Your task to perform on an android device: turn on airplane mode Image 0: 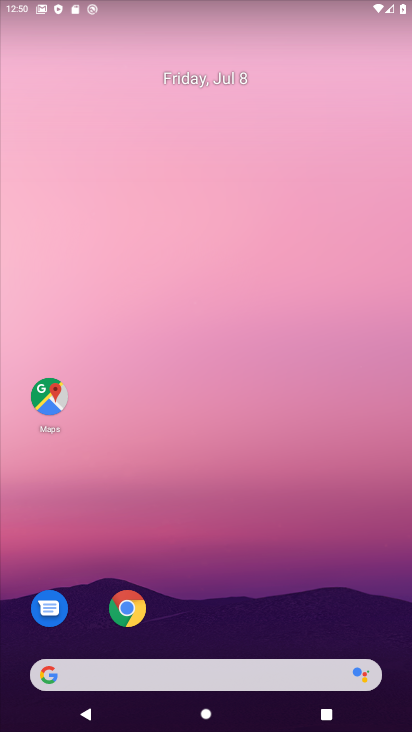
Step 0: drag from (377, 613) to (290, 153)
Your task to perform on an android device: turn on airplane mode Image 1: 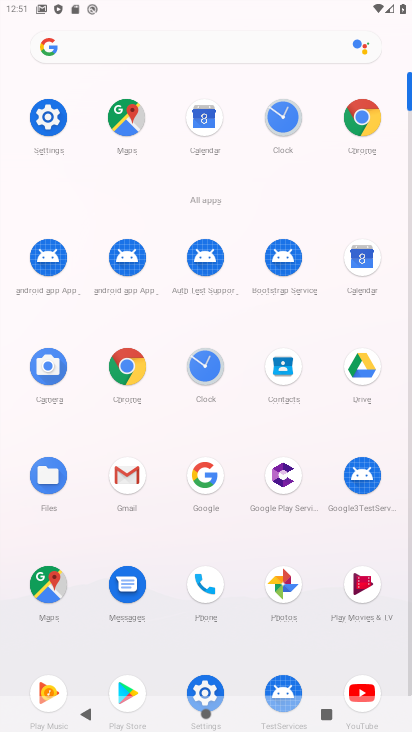
Step 1: click (200, 683)
Your task to perform on an android device: turn on airplane mode Image 2: 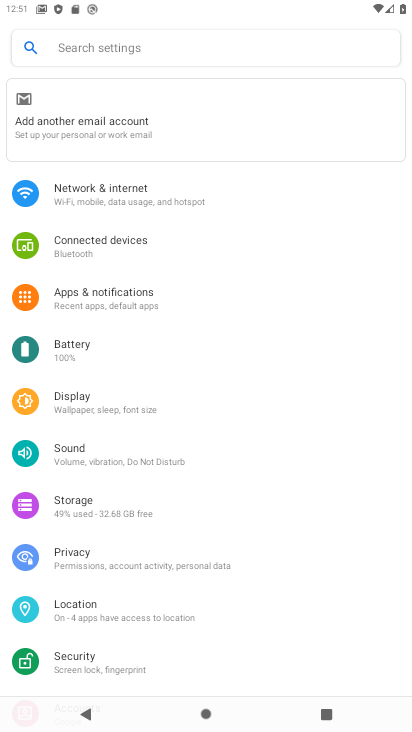
Step 2: click (98, 192)
Your task to perform on an android device: turn on airplane mode Image 3: 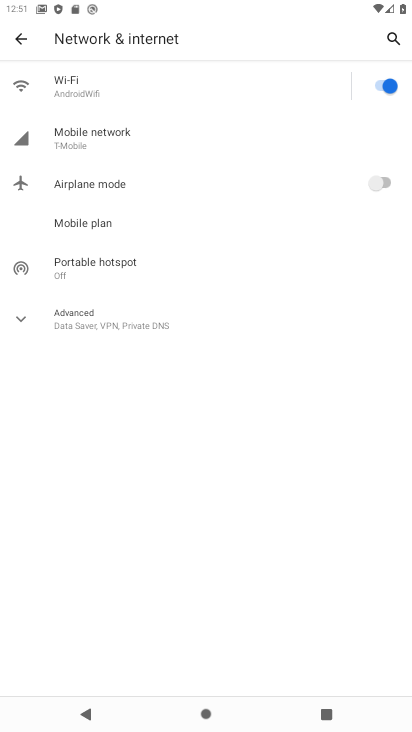
Step 3: click (387, 183)
Your task to perform on an android device: turn on airplane mode Image 4: 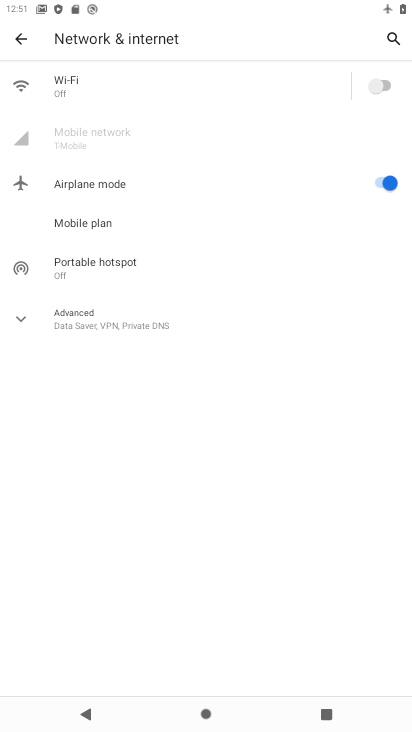
Step 4: task complete